Your task to perform on an android device: Open sound settings Image 0: 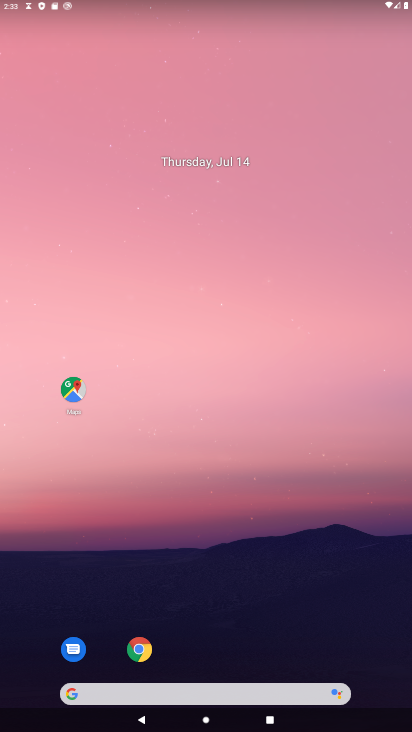
Step 0: drag from (216, 650) to (237, 0)
Your task to perform on an android device: Open sound settings Image 1: 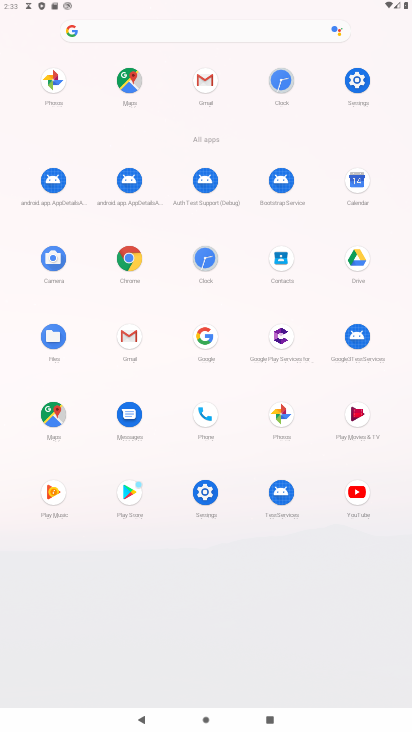
Step 1: click (356, 75)
Your task to perform on an android device: Open sound settings Image 2: 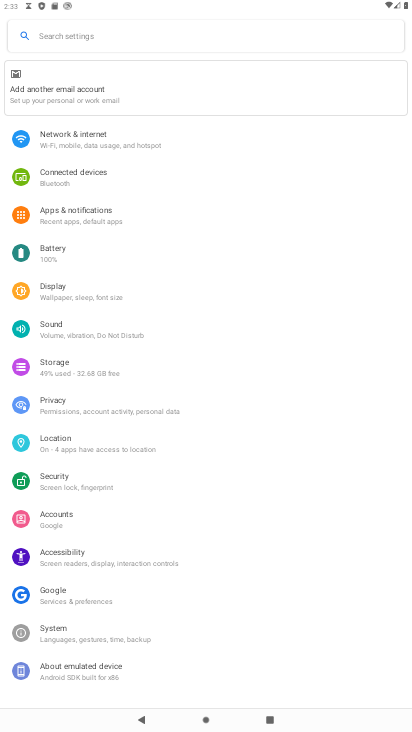
Step 2: click (81, 329)
Your task to perform on an android device: Open sound settings Image 3: 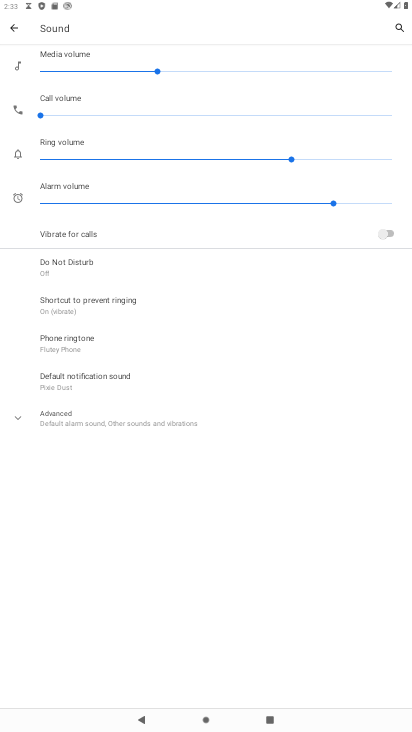
Step 3: task complete